Your task to perform on an android device: Go to Amazon Image 0: 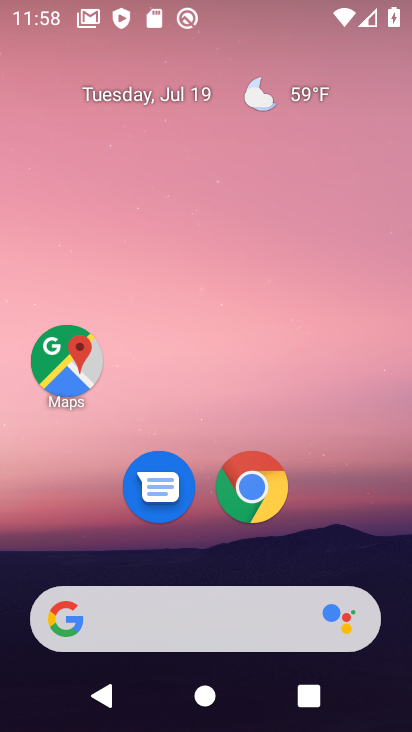
Step 0: drag from (132, 564) to (204, 64)
Your task to perform on an android device: Go to Amazon Image 1: 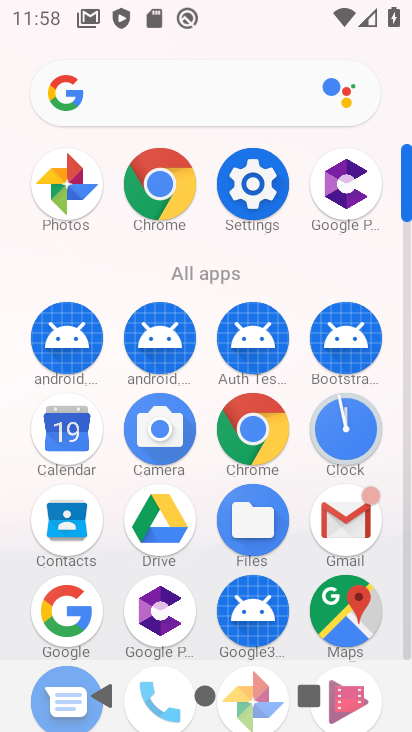
Step 1: click (167, 178)
Your task to perform on an android device: Go to Amazon Image 2: 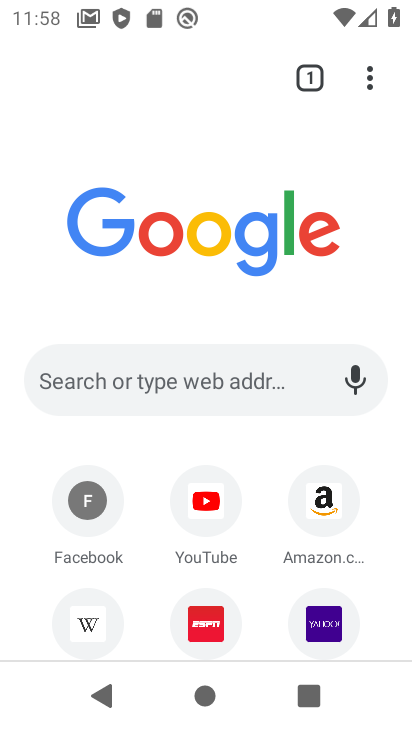
Step 2: click (330, 505)
Your task to perform on an android device: Go to Amazon Image 3: 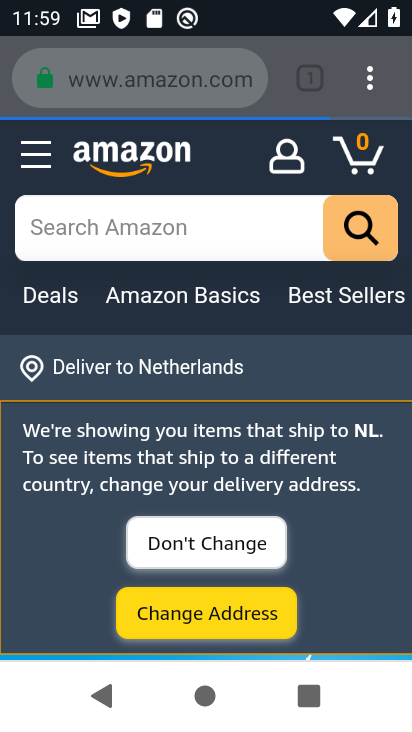
Step 3: task complete